Your task to perform on an android device: Add bose soundlink mini to the cart on bestbuy, then select checkout. Image 0: 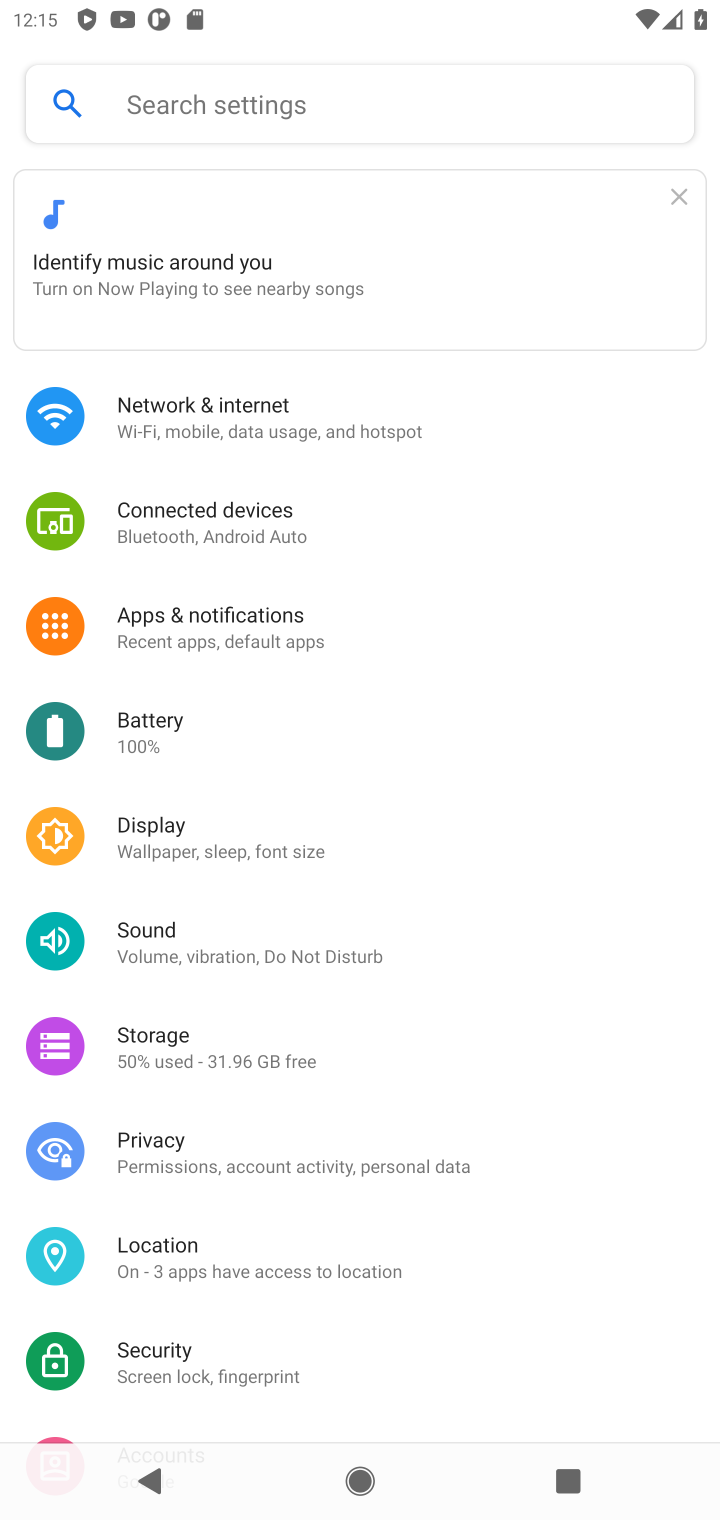
Step 0: press home button
Your task to perform on an android device: Add bose soundlink mini to the cart on bestbuy, then select checkout. Image 1: 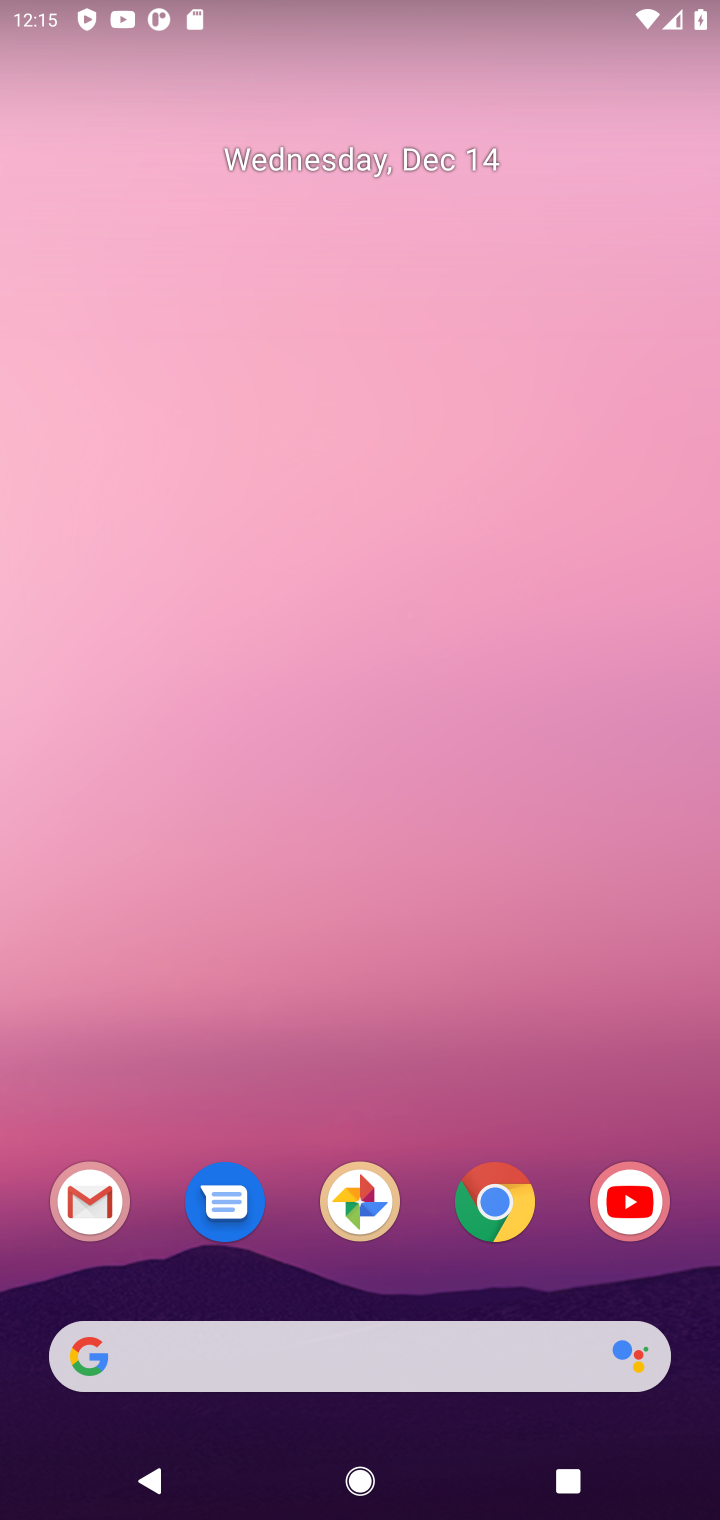
Step 1: click (498, 1217)
Your task to perform on an android device: Add bose soundlink mini to the cart on bestbuy, then select checkout. Image 2: 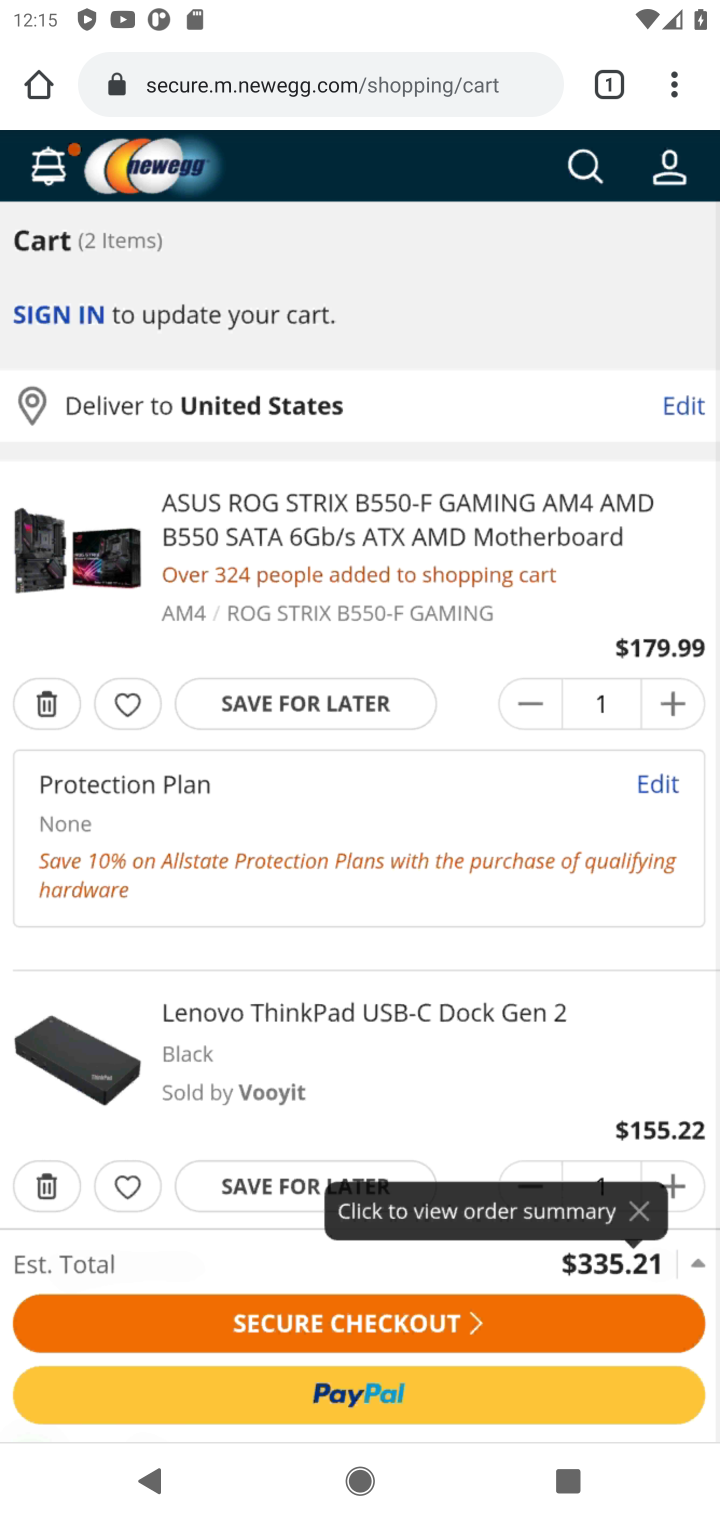
Step 2: click (311, 95)
Your task to perform on an android device: Add bose soundlink mini to the cart on bestbuy, then select checkout. Image 3: 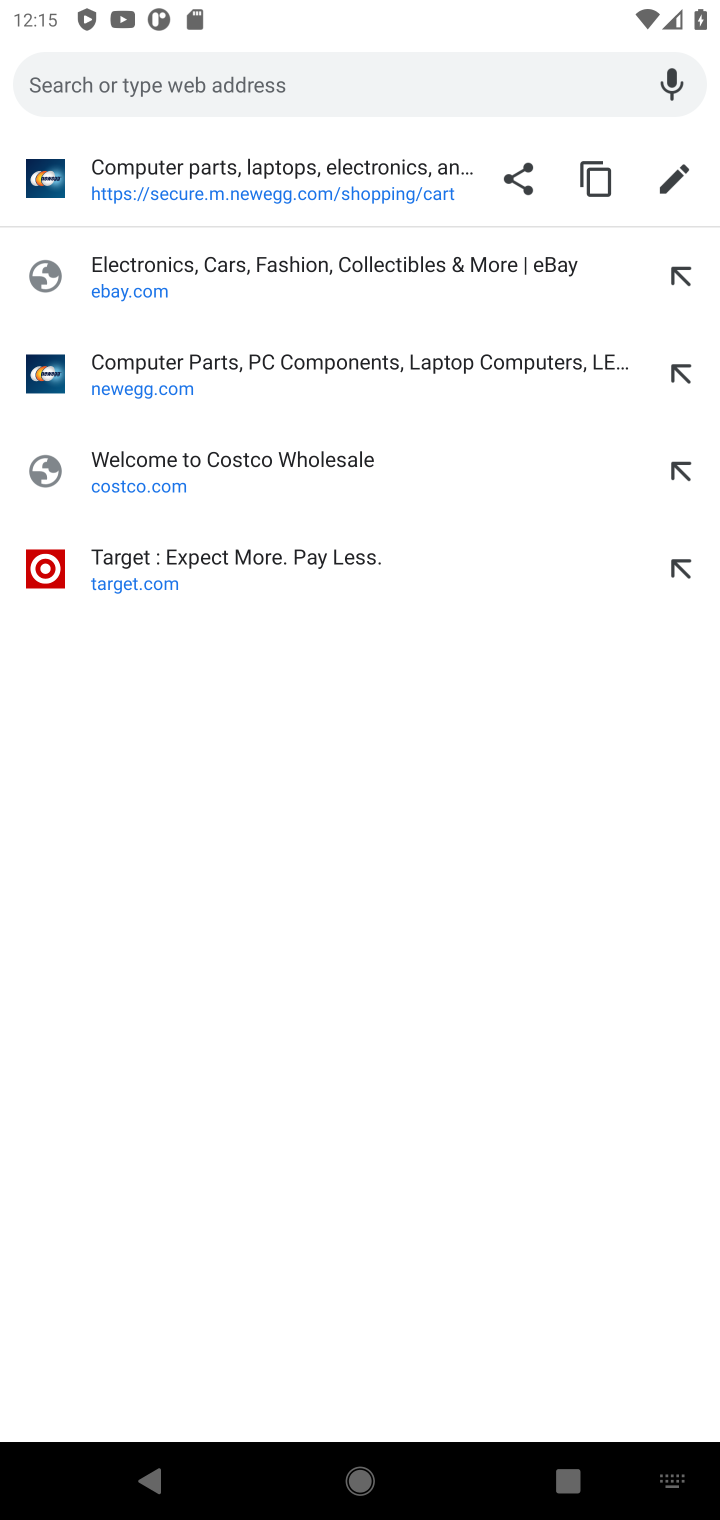
Step 3: type "bestbuy"
Your task to perform on an android device: Add bose soundlink mini to the cart on bestbuy, then select checkout. Image 4: 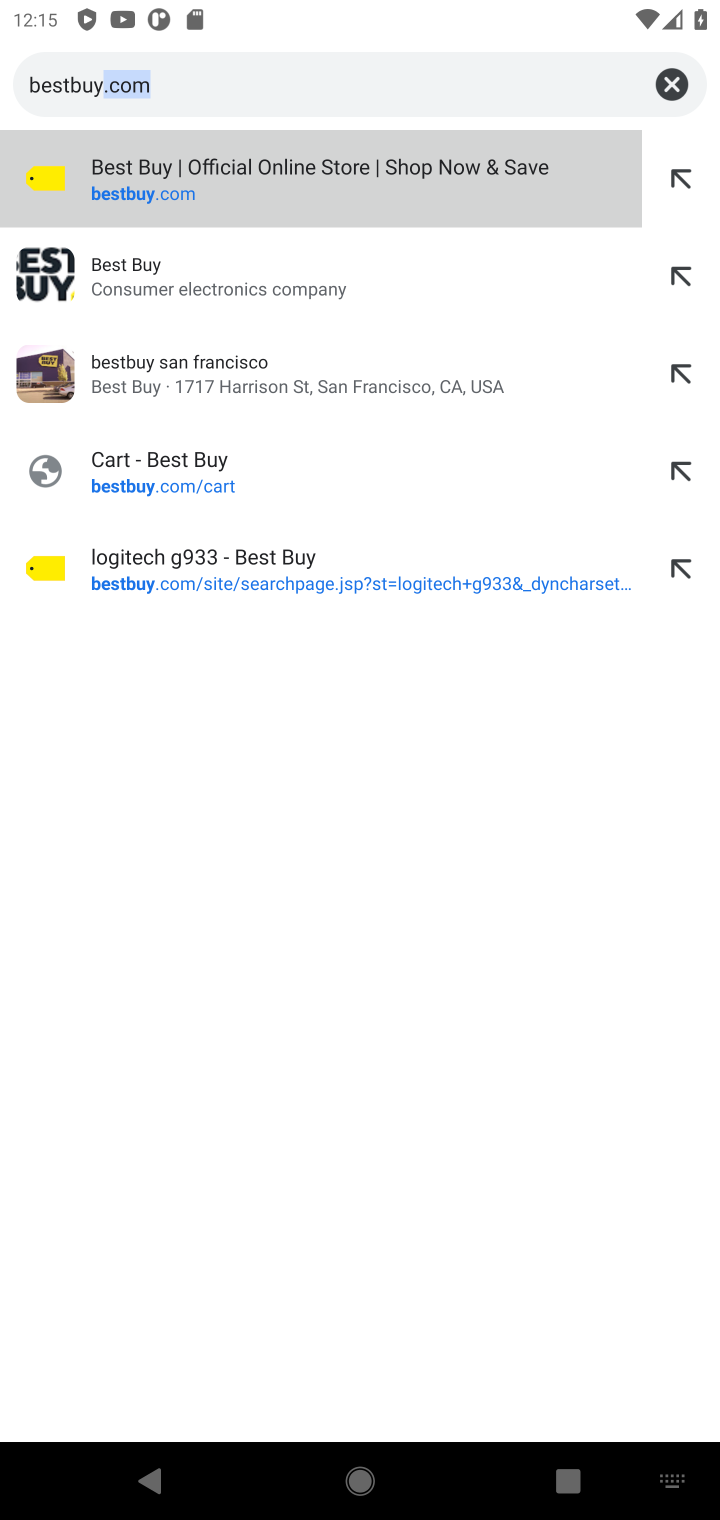
Step 4: click (382, 188)
Your task to perform on an android device: Add bose soundlink mini to the cart on bestbuy, then select checkout. Image 5: 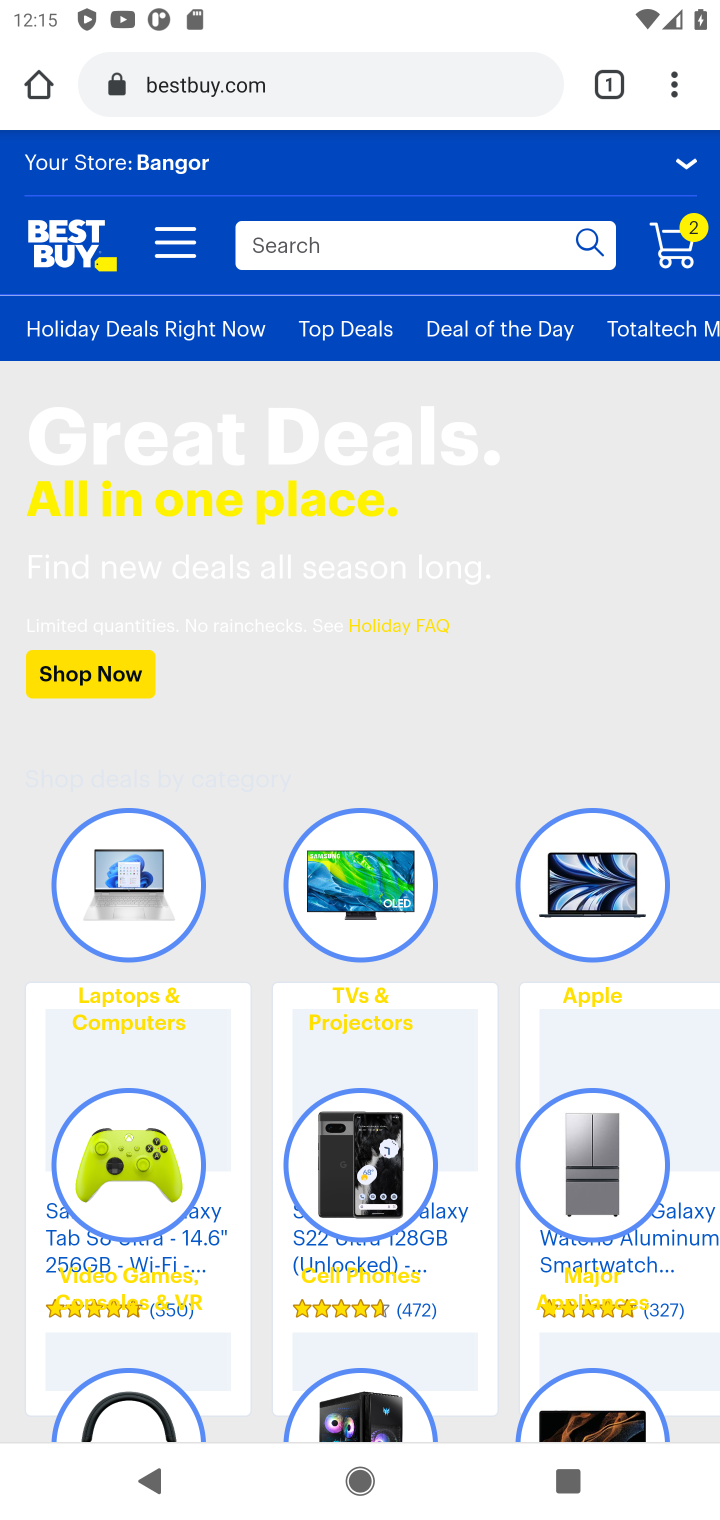
Step 5: click (442, 244)
Your task to perform on an android device: Add bose soundlink mini to the cart on bestbuy, then select checkout. Image 6: 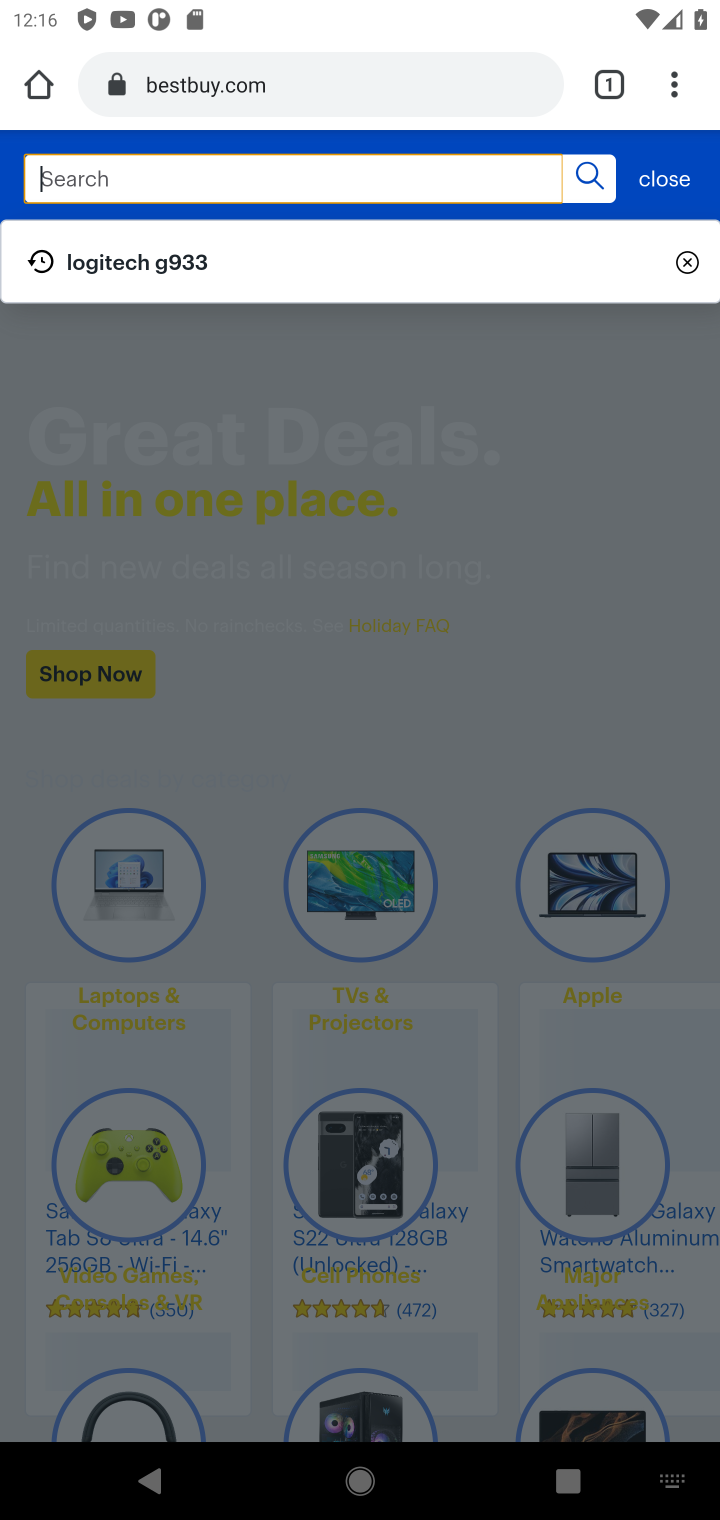
Step 6: type "bose soundlink mini"
Your task to perform on an android device: Add bose soundlink mini to the cart on bestbuy, then select checkout. Image 7: 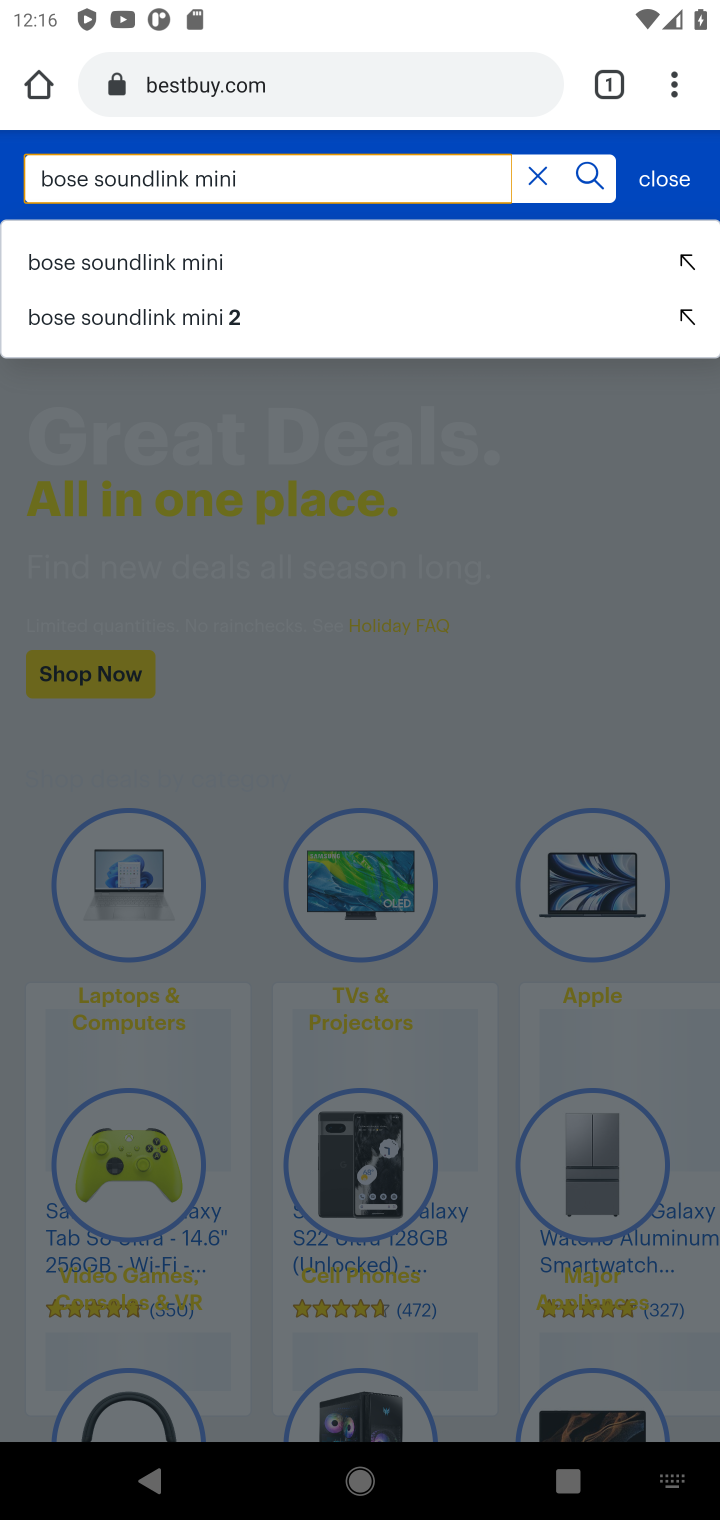
Step 7: click (121, 261)
Your task to perform on an android device: Add bose soundlink mini to the cart on bestbuy, then select checkout. Image 8: 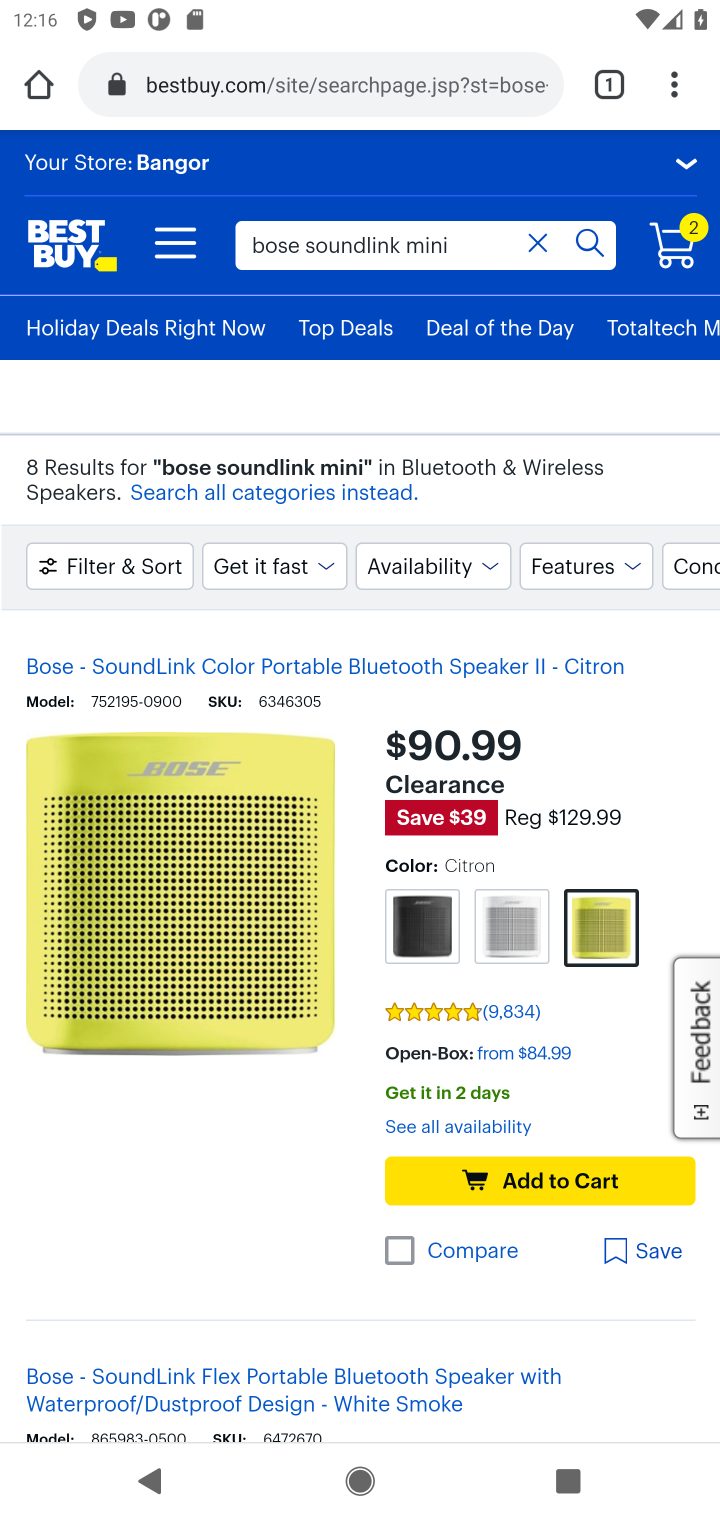
Step 8: click (562, 1177)
Your task to perform on an android device: Add bose soundlink mini to the cart on bestbuy, then select checkout. Image 9: 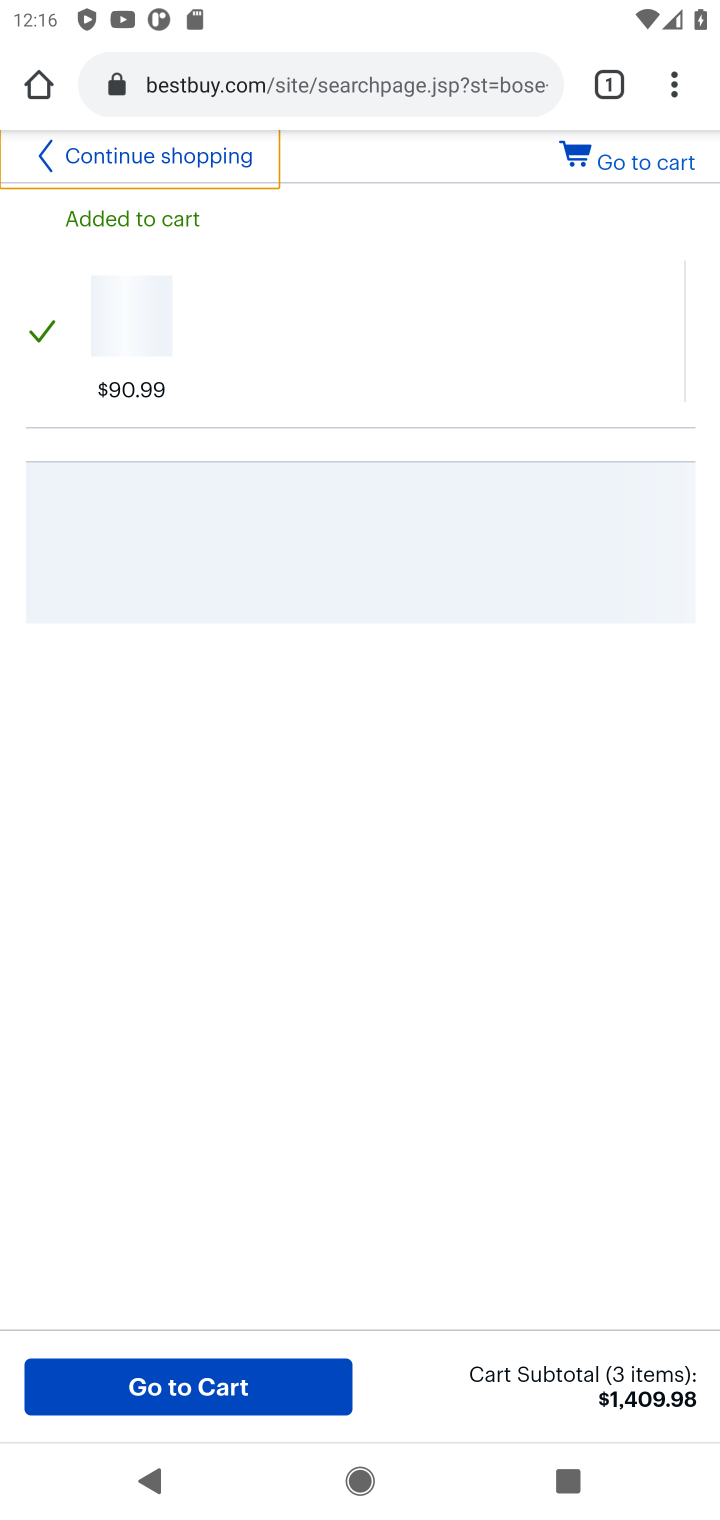
Step 9: click (201, 1395)
Your task to perform on an android device: Add bose soundlink mini to the cart on bestbuy, then select checkout. Image 10: 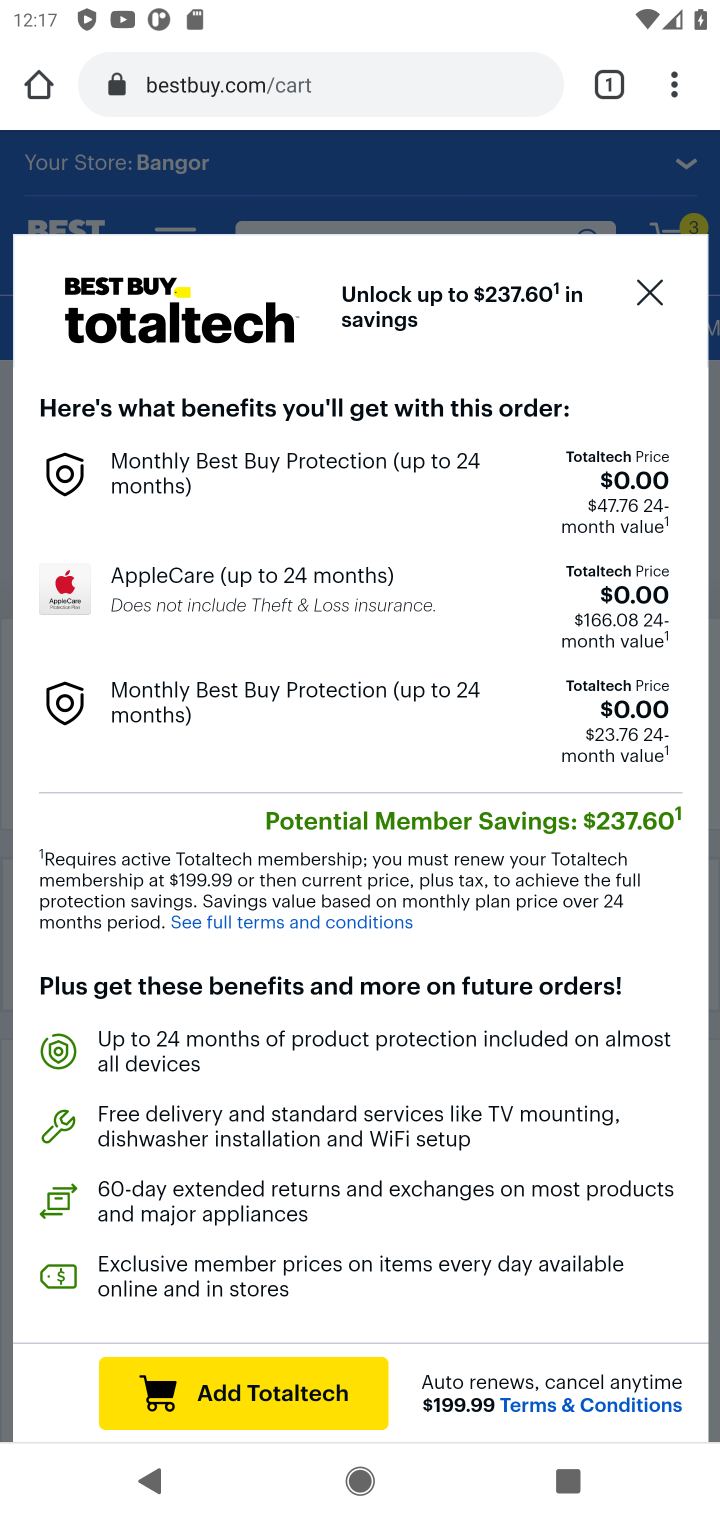
Step 10: click (649, 283)
Your task to perform on an android device: Add bose soundlink mini to the cart on bestbuy, then select checkout. Image 11: 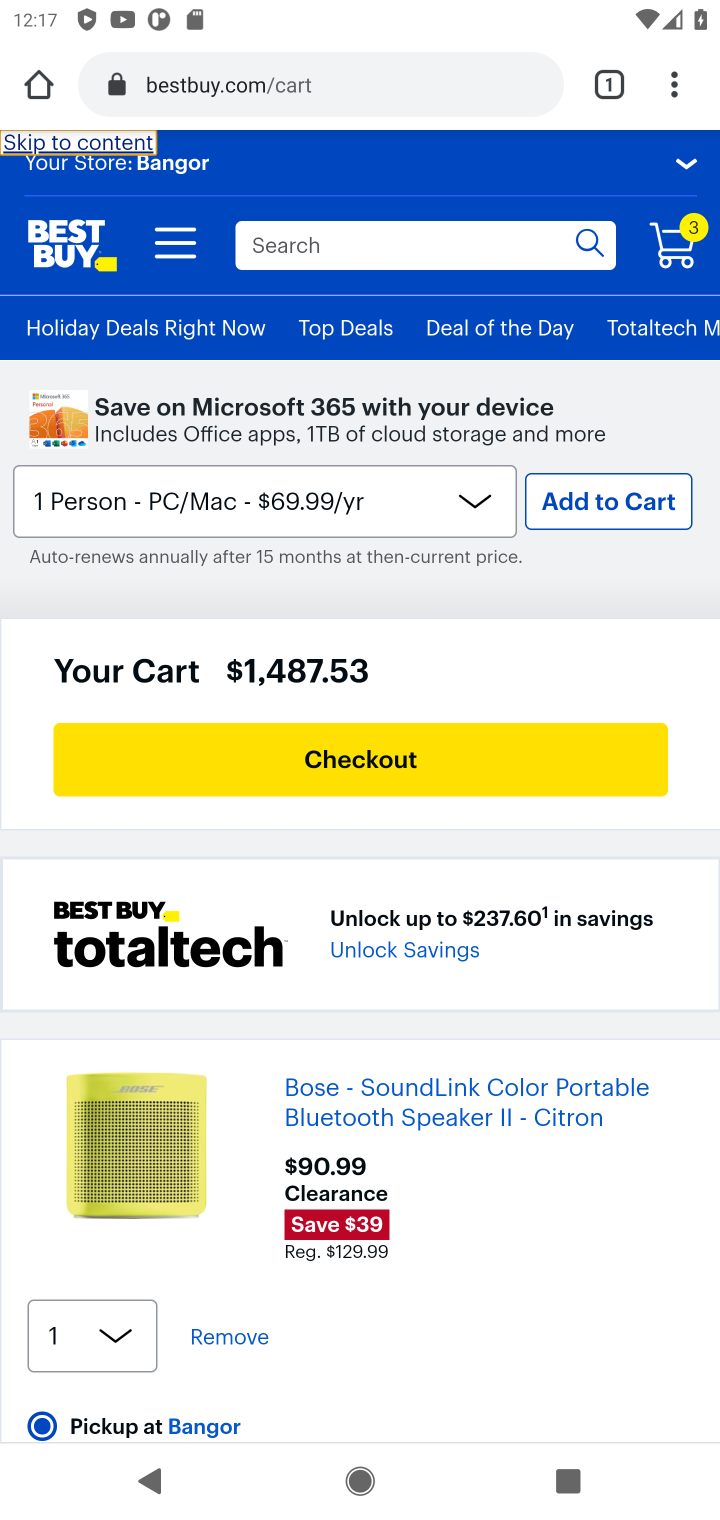
Step 11: click (365, 747)
Your task to perform on an android device: Add bose soundlink mini to the cart on bestbuy, then select checkout. Image 12: 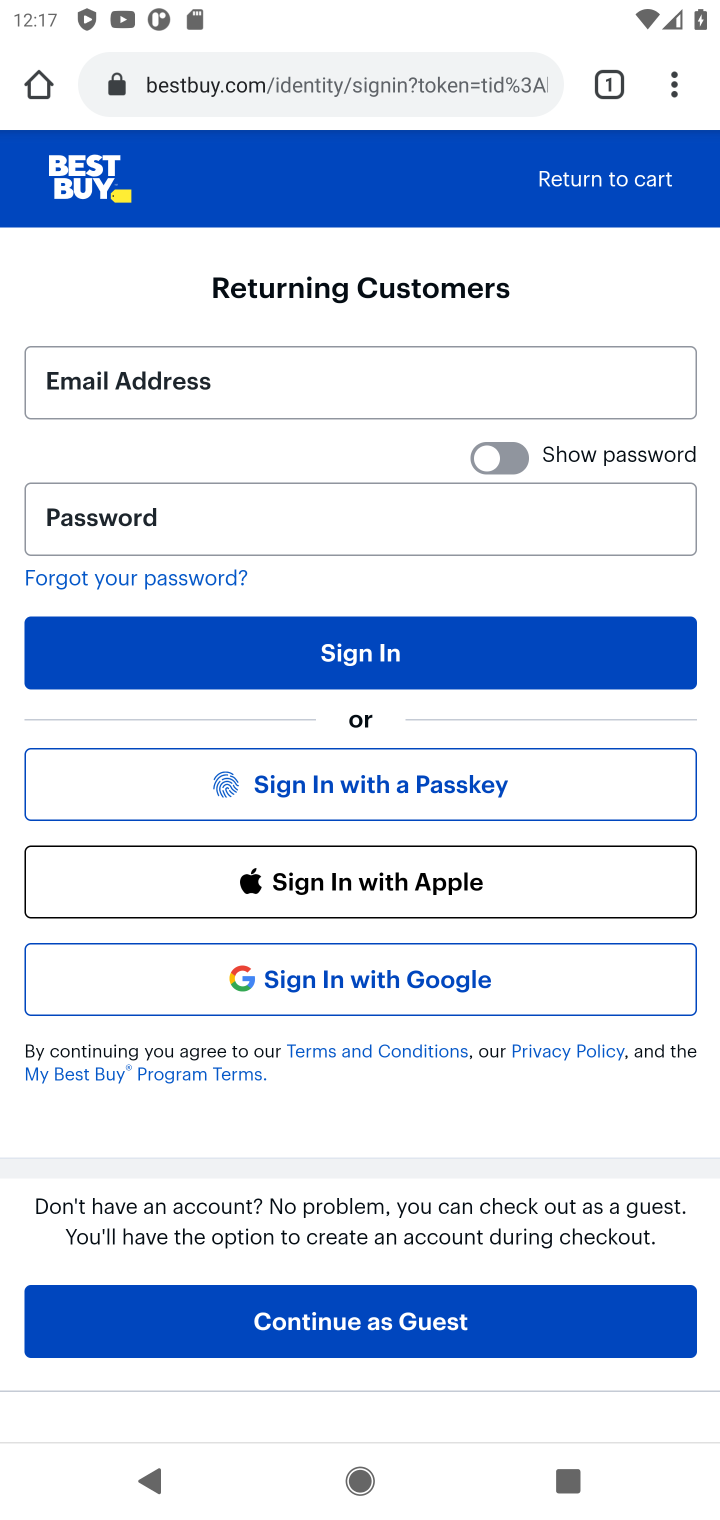
Step 12: task complete